Your task to perform on an android device: Show me popular videos on Youtube Image 0: 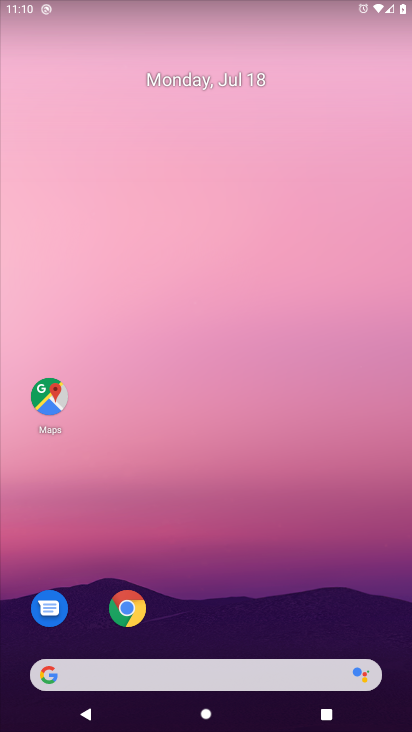
Step 0: drag from (45, 689) to (243, 24)
Your task to perform on an android device: Show me popular videos on Youtube Image 1: 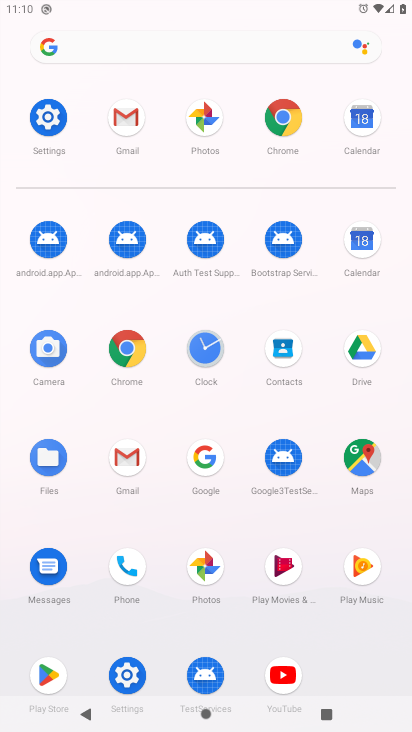
Step 1: click (293, 682)
Your task to perform on an android device: Show me popular videos on Youtube Image 2: 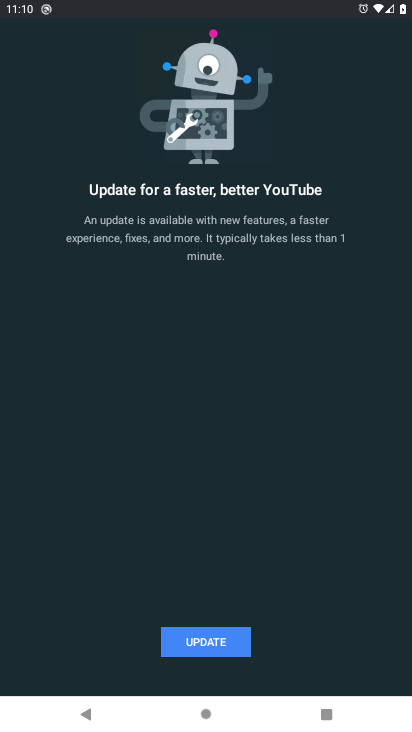
Step 2: task complete